Your task to perform on an android device: toggle notification dots Image 0: 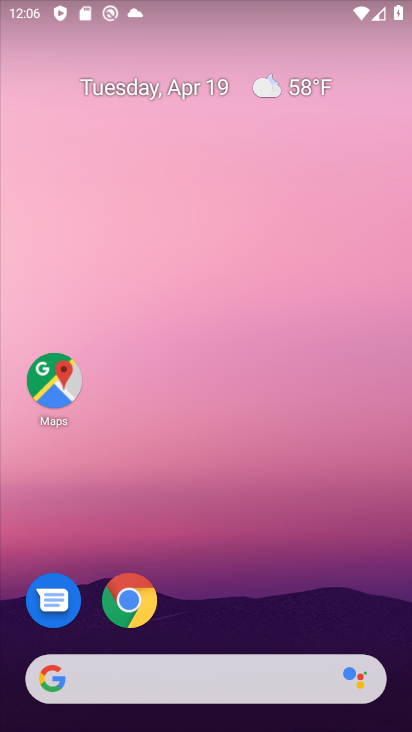
Step 0: drag from (254, 716) to (268, 328)
Your task to perform on an android device: toggle notification dots Image 1: 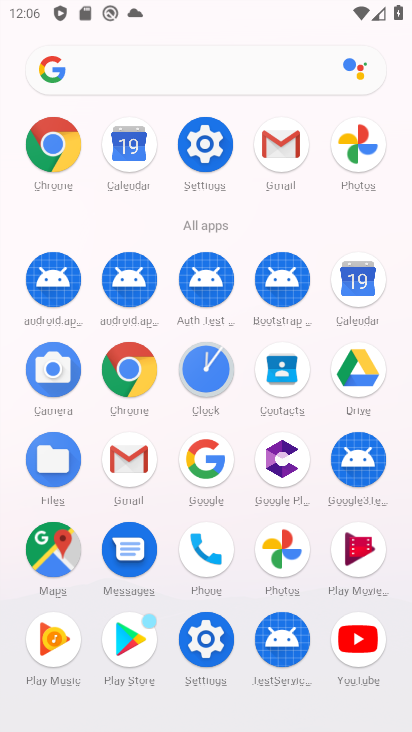
Step 1: click (204, 157)
Your task to perform on an android device: toggle notification dots Image 2: 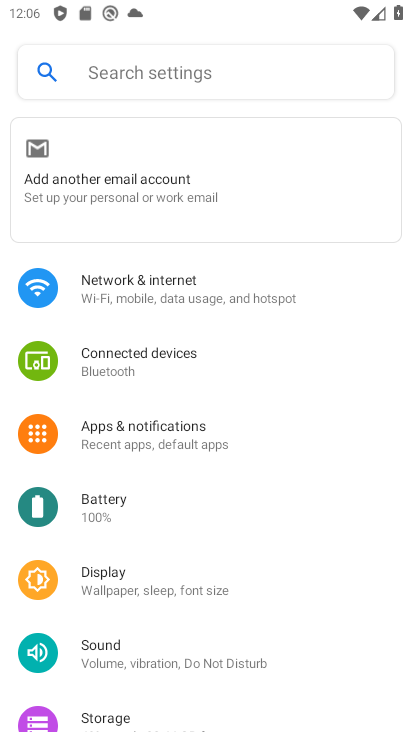
Step 2: click (177, 63)
Your task to perform on an android device: toggle notification dots Image 3: 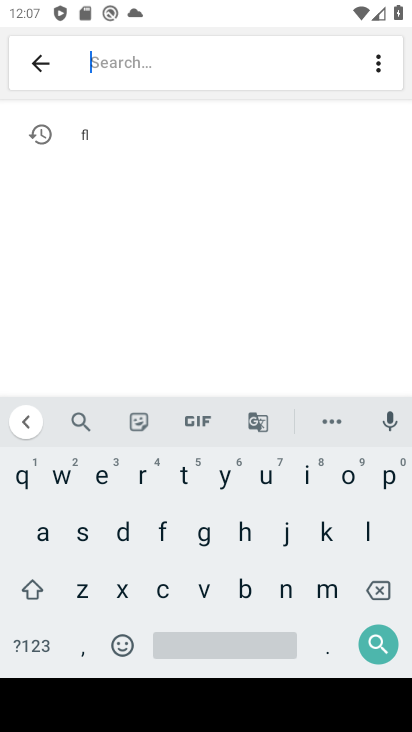
Step 3: click (120, 525)
Your task to perform on an android device: toggle notification dots Image 4: 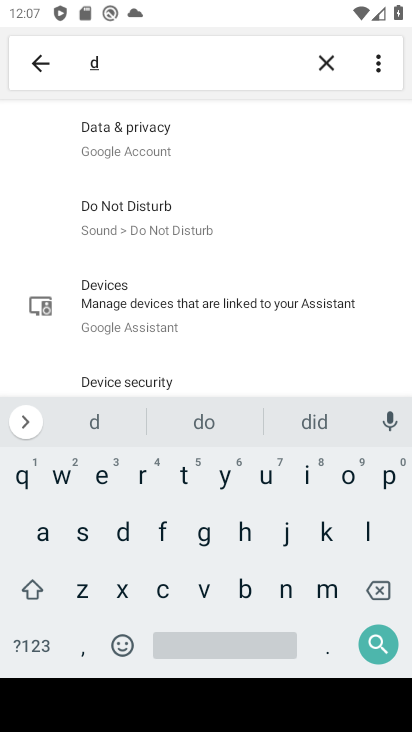
Step 4: click (344, 481)
Your task to perform on an android device: toggle notification dots Image 5: 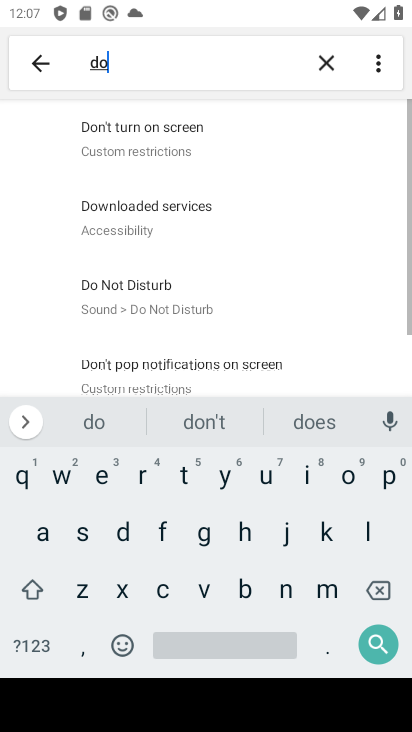
Step 5: click (177, 472)
Your task to perform on an android device: toggle notification dots Image 6: 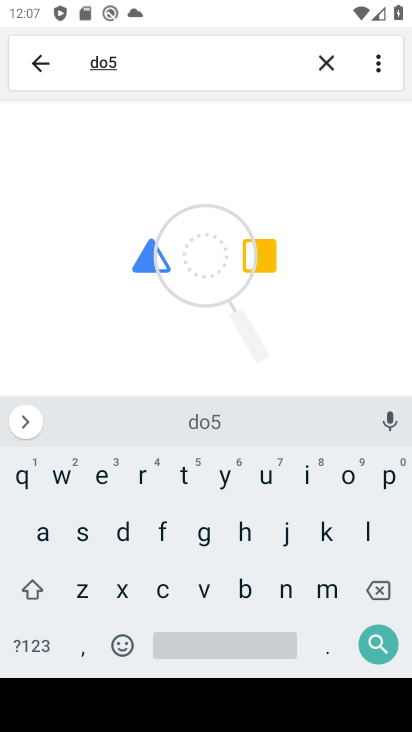
Step 6: click (378, 596)
Your task to perform on an android device: toggle notification dots Image 7: 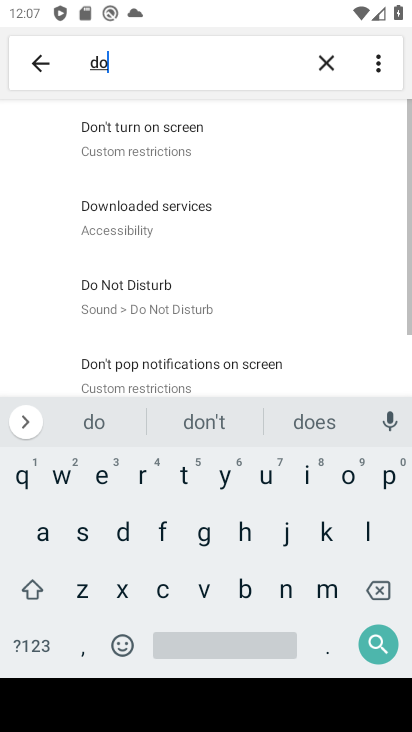
Step 7: click (178, 479)
Your task to perform on an android device: toggle notification dots Image 8: 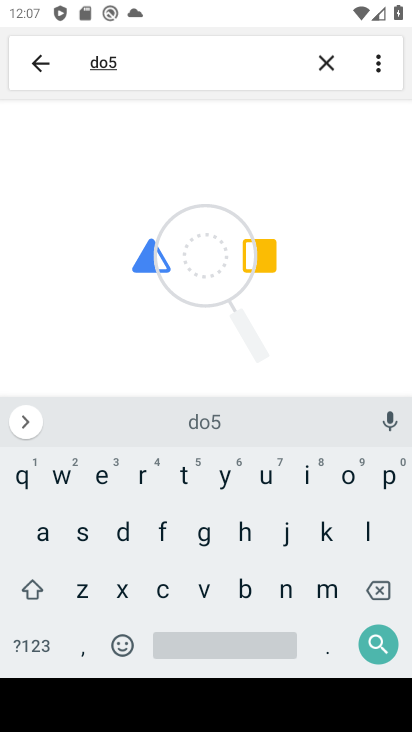
Step 8: click (379, 585)
Your task to perform on an android device: toggle notification dots Image 9: 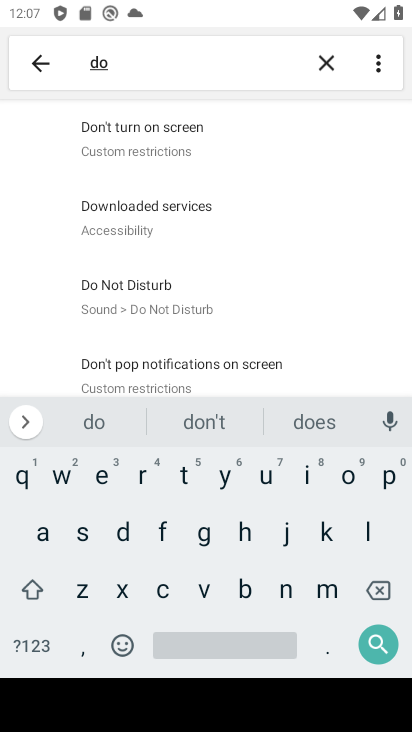
Step 9: click (186, 479)
Your task to perform on an android device: toggle notification dots Image 10: 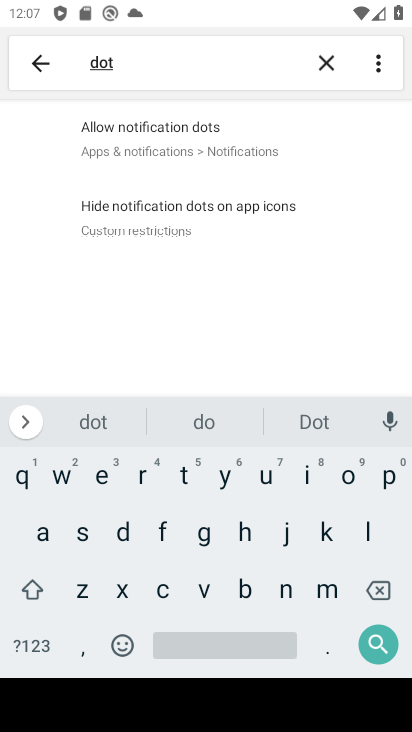
Step 10: click (208, 135)
Your task to perform on an android device: toggle notification dots Image 11: 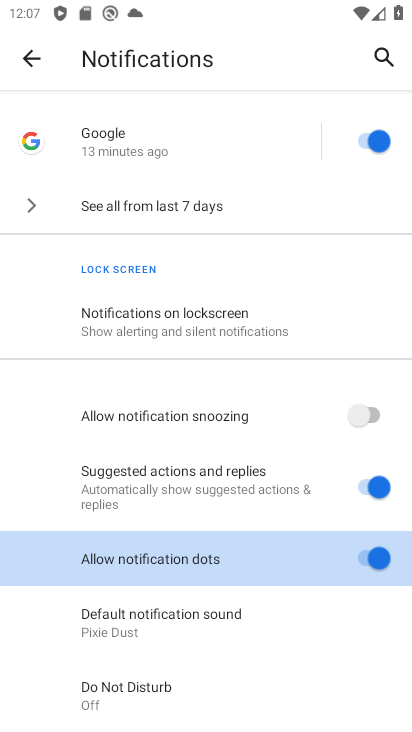
Step 11: click (140, 564)
Your task to perform on an android device: toggle notification dots Image 12: 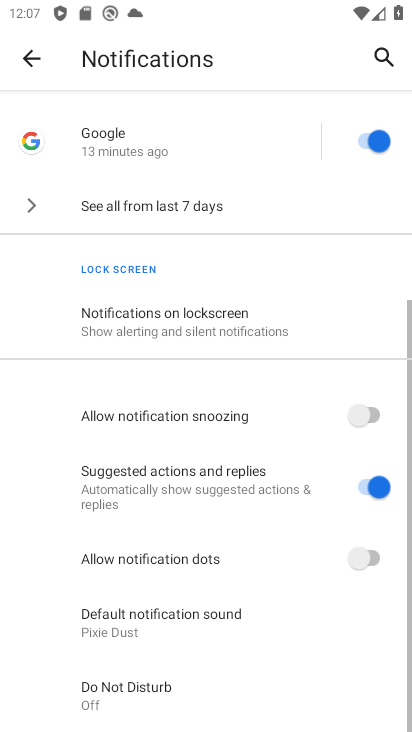
Step 12: click (140, 564)
Your task to perform on an android device: toggle notification dots Image 13: 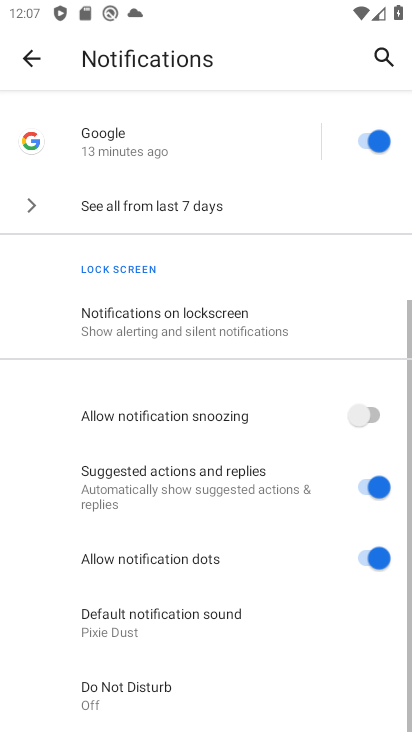
Step 13: task complete